Your task to perform on an android device: Search for Italian restaurants on Maps Image 0: 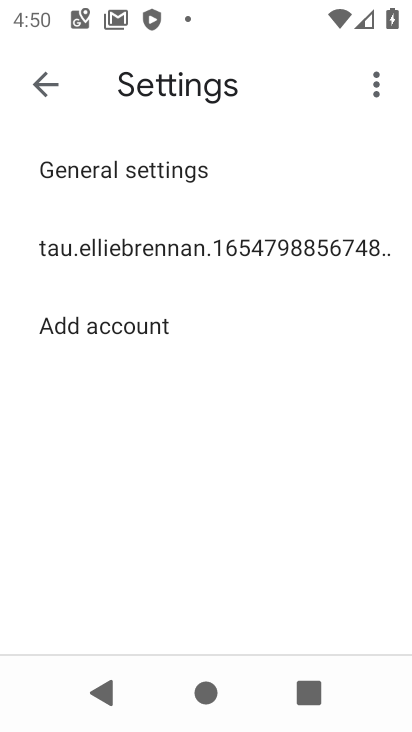
Step 0: click (197, 240)
Your task to perform on an android device: Search for Italian restaurants on Maps Image 1: 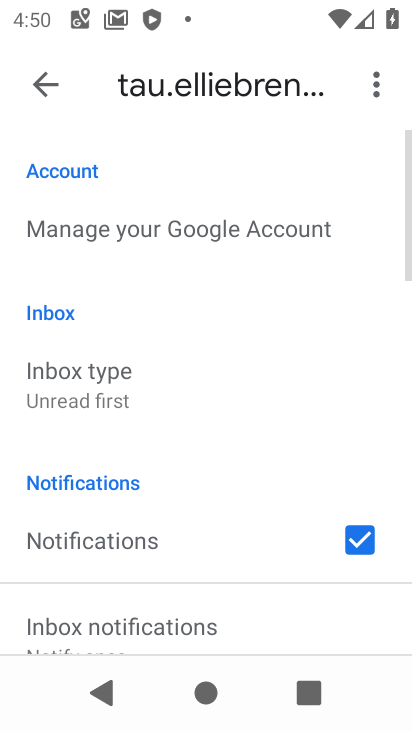
Step 1: drag from (206, 521) to (283, 150)
Your task to perform on an android device: Search for Italian restaurants on Maps Image 2: 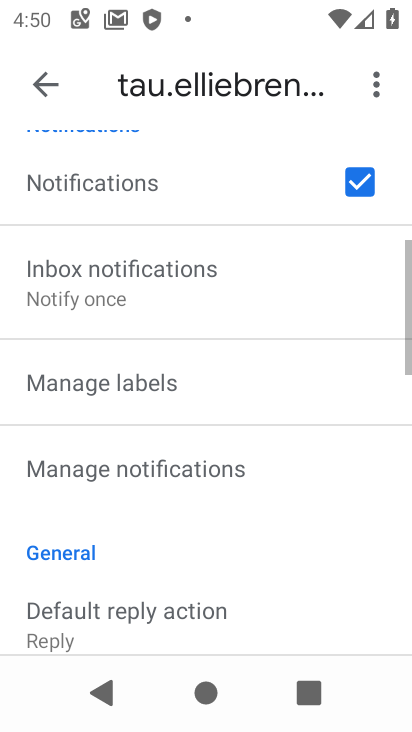
Step 2: drag from (196, 616) to (309, 245)
Your task to perform on an android device: Search for Italian restaurants on Maps Image 3: 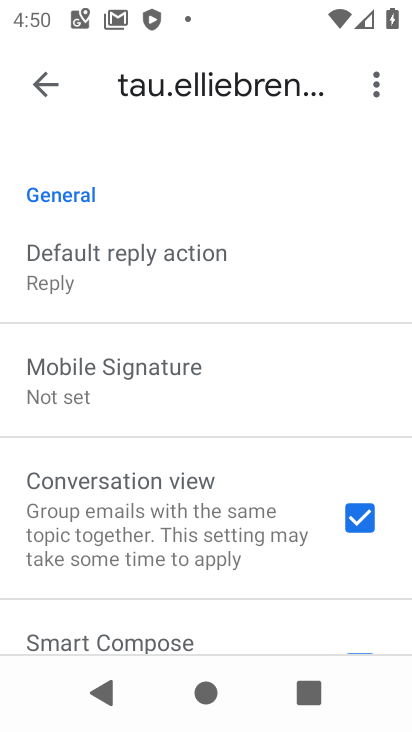
Step 3: drag from (210, 513) to (280, 251)
Your task to perform on an android device: Search for Italian restaurants on Maps Image 4: 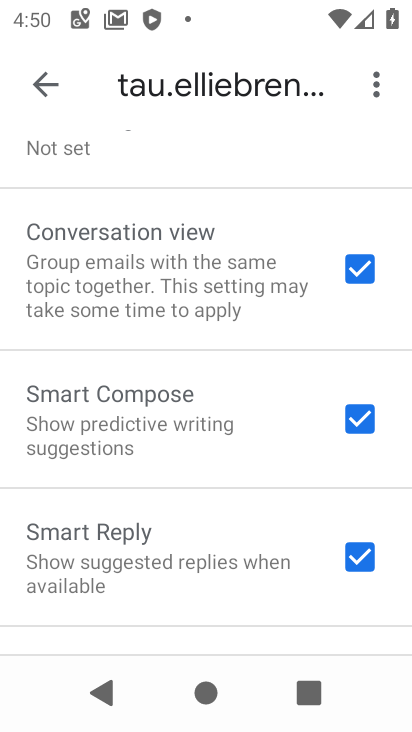
Step 4: drag from (214, 559) to (307, 188)
Your task to perform on an android device: Search for Italian restaurants on Maps Image 5: 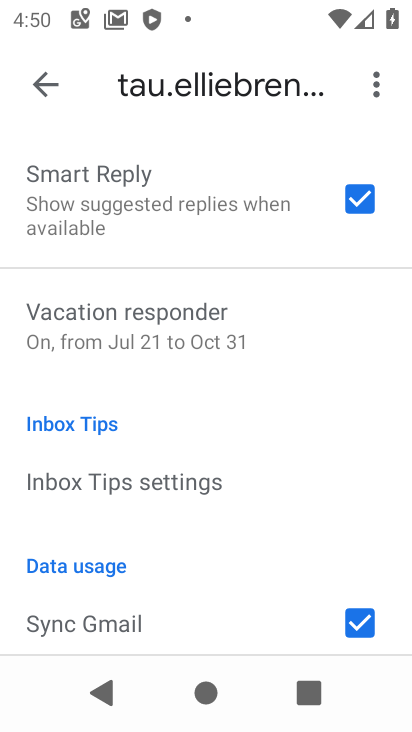
Step 5: drag from (205, 228) to (241, 679)
Your task to perform on an android device: Search for Italian restaurants on Maps Image 6: 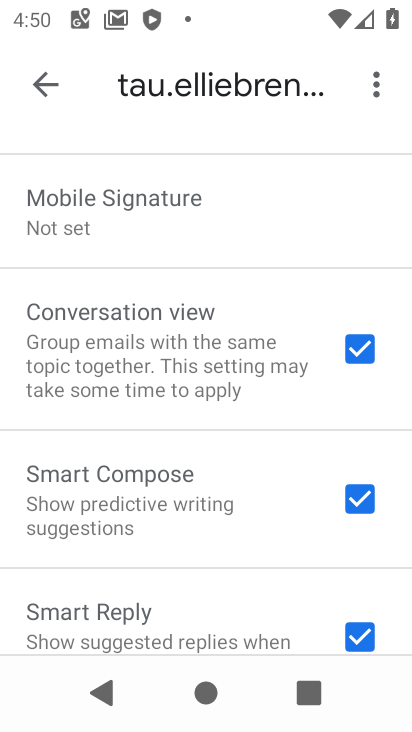
Step 6: drag from (233, 280) to (275, 730)
Your task to perform on an android device: Search for Italian restaurants on Maps Image 7: 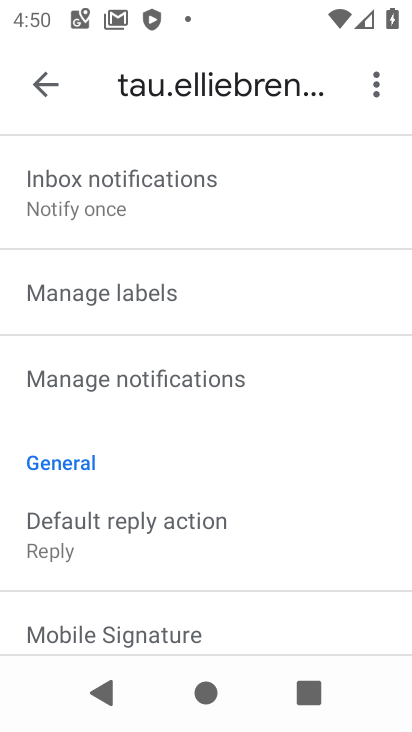
Step 7: click (40, 83)
Your task to perform on an android device: Search for Italian restaurants on Maps Image 8: 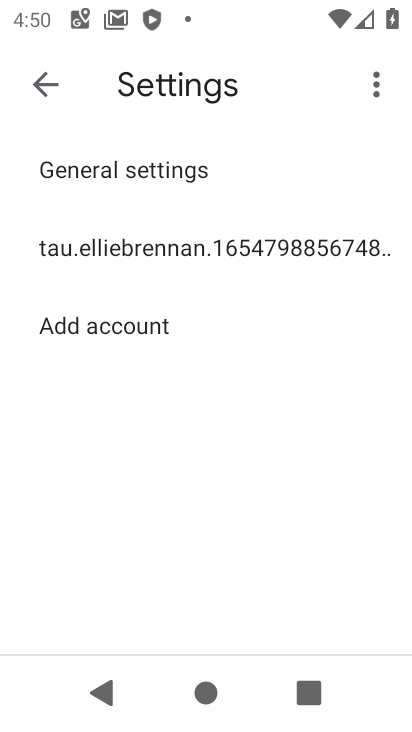
Step 8: click (39, 80)
Your task to perform on an android device: Search for Italian restaurants on Maps Image 9: 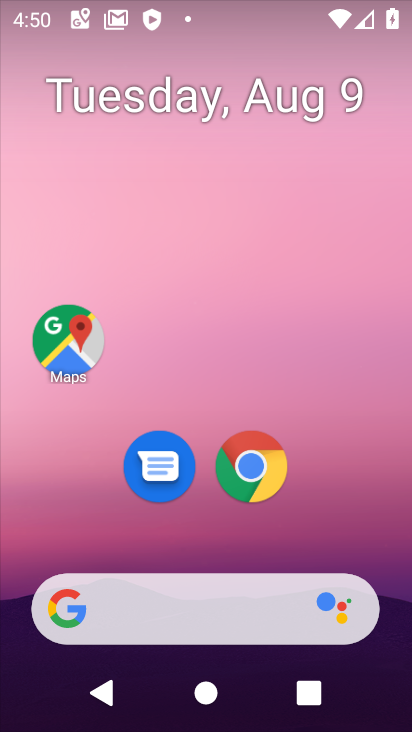
Step 9: click (65, 331)
Your task to perform on an android device: Search for Italian restaurants on Maps Image 10: 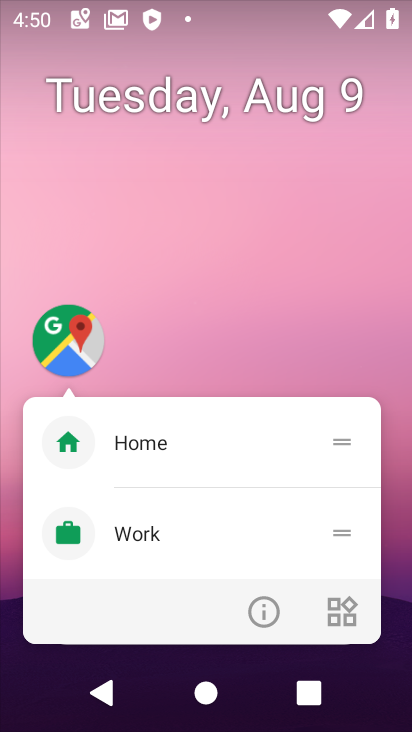
Step 10: click (262, 604)
Your task to perform on an android device: Search for Italian restaurants on Maps Image 11: 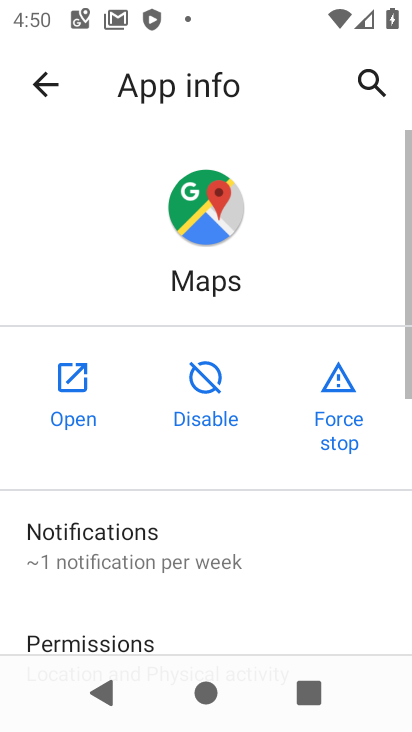
Step 11: click (72, 389)
Your task to perform on an android device: Search for Italian restaurants on Maps Image 12: 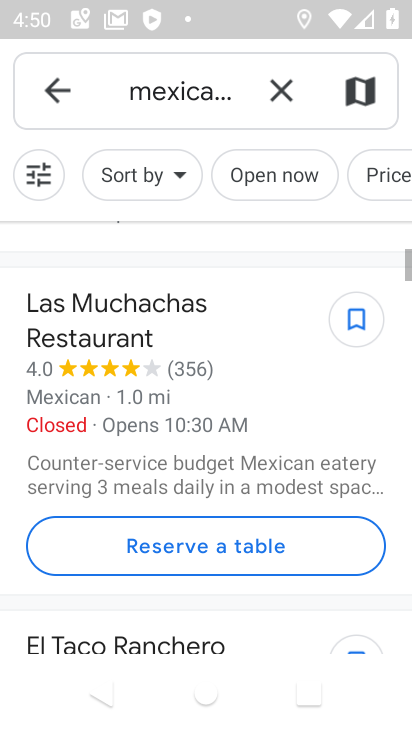
Step 12: drag from (204, 649) to (236, 419)
Your task to perform on an android device: Search for Italian restaurants on Maps Image 13: 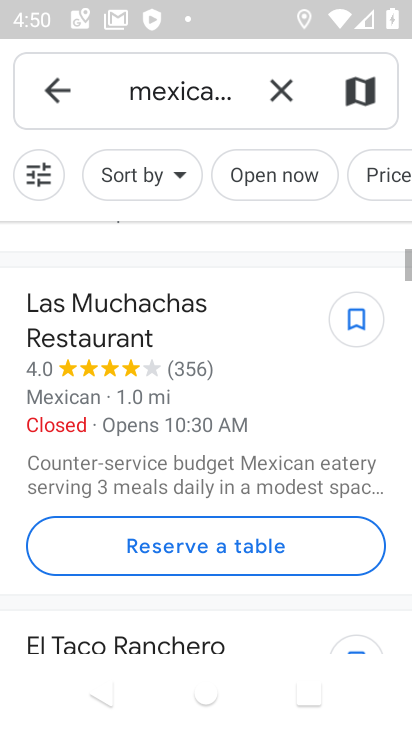
Step 13: click (285, 100)
Your task to perform on an android device: Search for Italian restaurants on Maps Image 14: 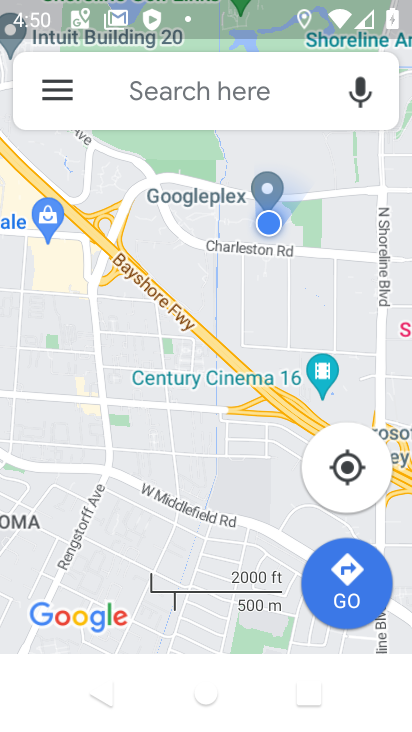
Step 14: click (241, 96)
Your task to perform on an android device: Search for Italian restaurants on Maps Image 15: 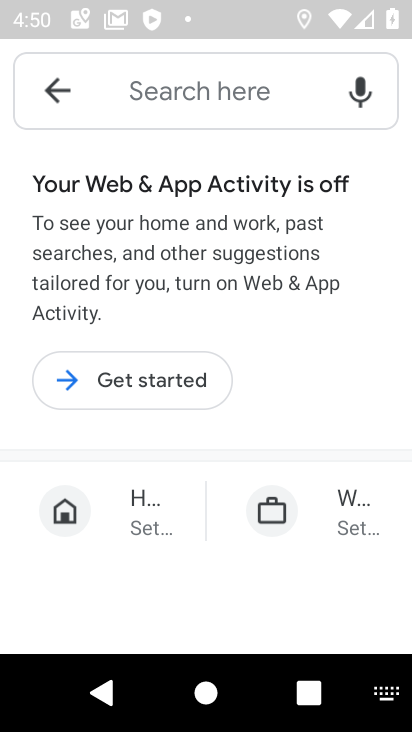
Step 15: click (120, 91)
Your task to perform on an android device: Search for Italian restaurants on Maps Image 16: 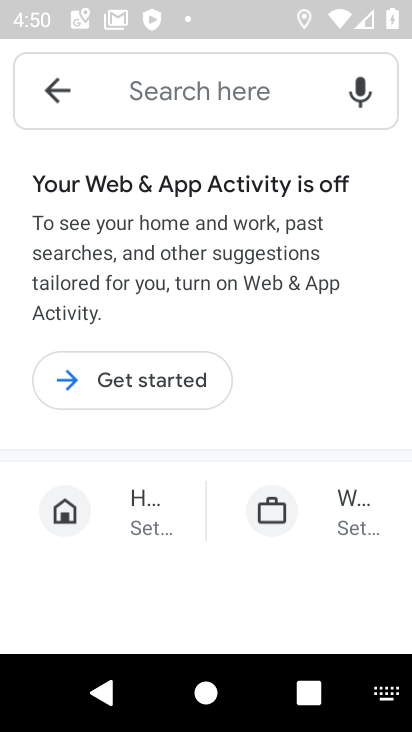
Step 16: type "Italian restaurants"
Your task to perform on an android device: Search for Italian restaurants on Maps Image 17: 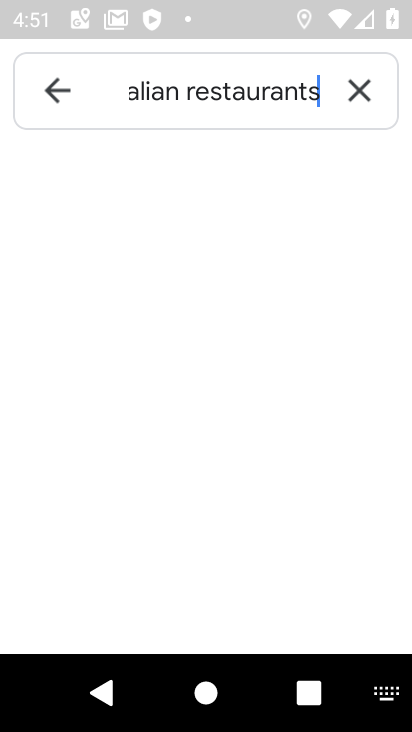
Step 17: type ""
Your task to perform on an android device: Search for Italian restaurants on Maps Image 18: 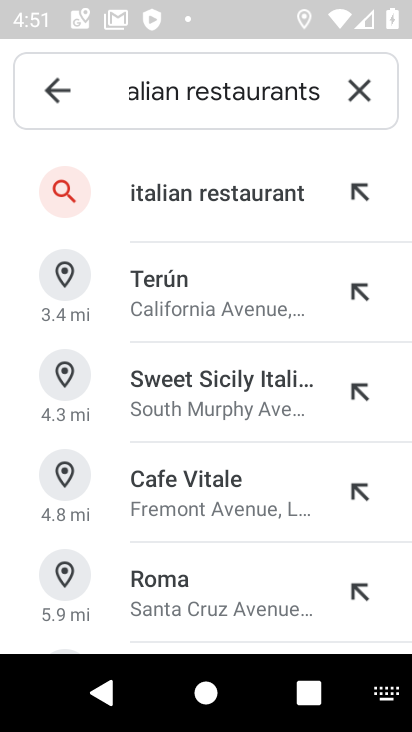
Step 18: click (231, 203)
Your task to perform on an android device: Search for Italian restaurants on Maps Image 19: 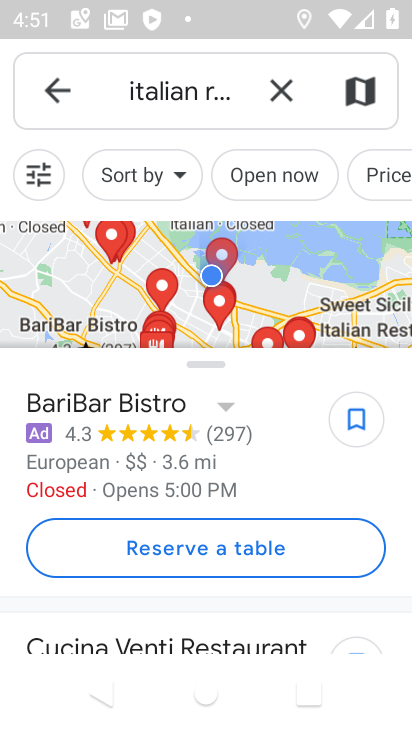
Step 19: task complete